Your task to perform on an android device: Add "logitech g pro" to the cart on walmart.com Image 0: 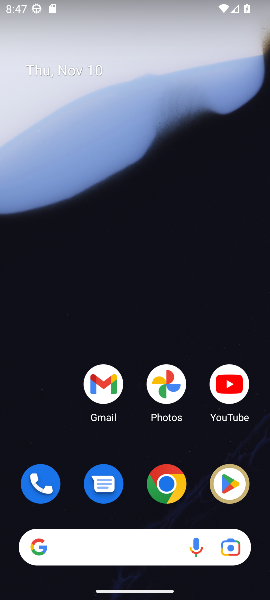
Step 0: click (173, 484)
Your task to perform on an android device: Add "logitech g pro" to the cart on walmart.com Image 1: 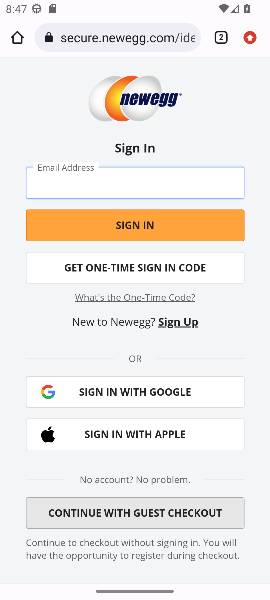
Step 1: click (123, 42)
Your task to perform on an android device: Add "logitech g pro" to the cart on walmart.com Image 2: 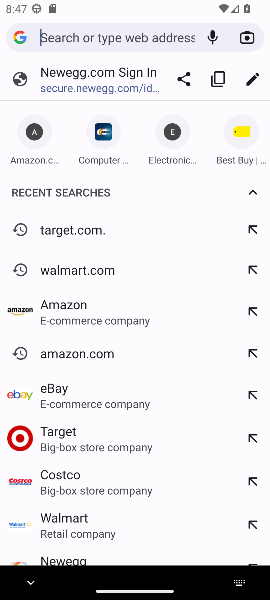
Step 2: click (92, 278)
Your task to perform on an android device: Add "logitech g pro" to the cart on walmart.com Image 3: 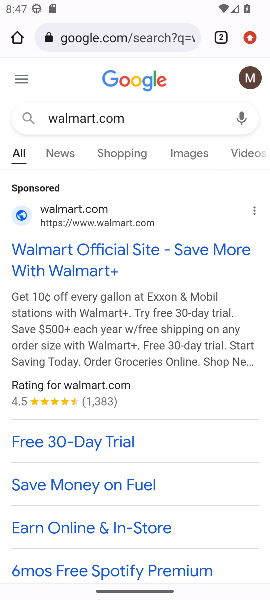
Step 3: drag from (93, 303) to (79, 112)
Your task to perform on an android device: Add "logitech g pro" to the cart on walmart.com Image 4: 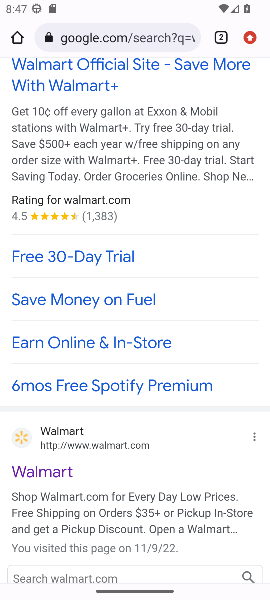
Step 4: click (55, 442)
Your task to perform on an android device: Add "logitech g pro" to the cart on walmart.com Image 5: 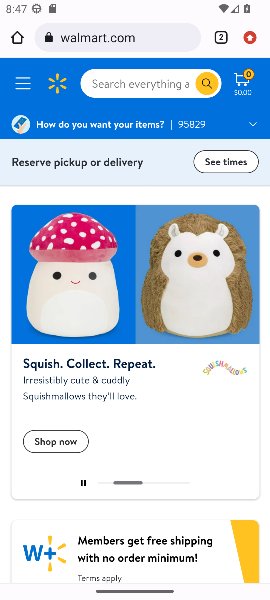
Step 5: click (176, 87)
Your task to perform on an android device: Add "logitech g pro" to the cart on walmart.com Image 6: 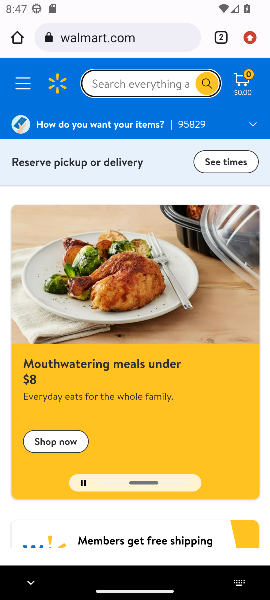
Step 6: type "logitech g pro"
Your task to perform on an android device: Add "logitech g pro" to the cart on walmart.com Image 7: 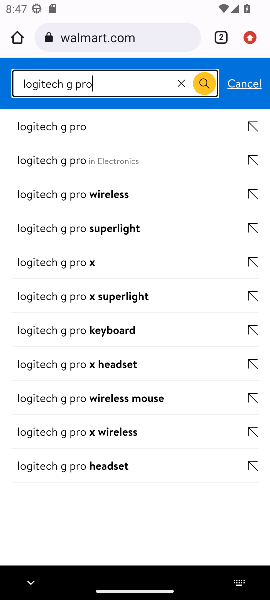
Step 7: click (69, 132)
Your task to perform on an android device: Add "logitech g pro" to the cart on walmart.com Image 8: 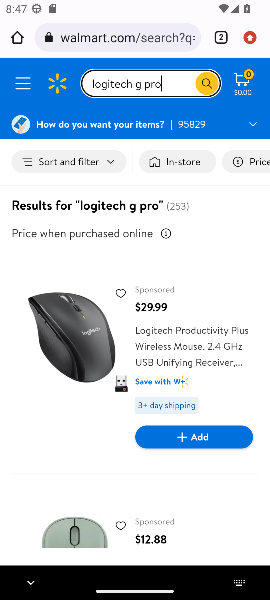
Step 8: drag from (112, 400) to (107, 206)
Your task to perform on an android device: Add "logitech g pro" to the cart on walmart.com Image 9: 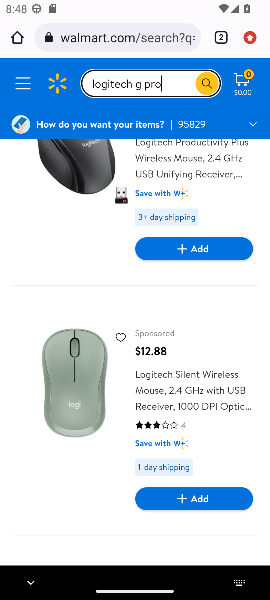
Step 9: drag from (114, 462) to (98, 133)
Your task to perform on an android device: Add "logitech g pro" to the cart on walmart.com Image 10: 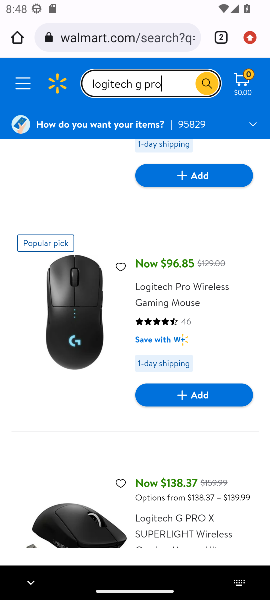
Step 10: drag from (82, 380) to (72, 192)
Your task to perform on an android device: Add "logitech g pro" to the cart on walmart.com Image 11: 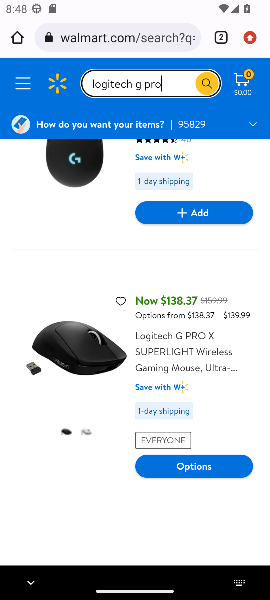
Step 11: click (103, 366)
Your task to perform on an android device: Add "logitech g pro" to the cart on walmart.com Image 12: 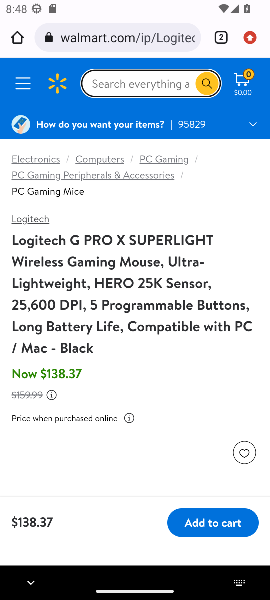
Step 12: drag from (115, 395) to (117, 186)
Your task to perform on an android device: Add "logitech g pro" to the cart on walmart.com Image 13: 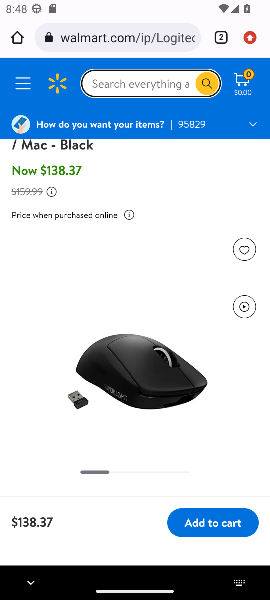
Step 13: drag from (106, 446) to (104, 293)
Your task to perform on an android device: Add "logitech g pro" to the cart on walmart.com Image 14: 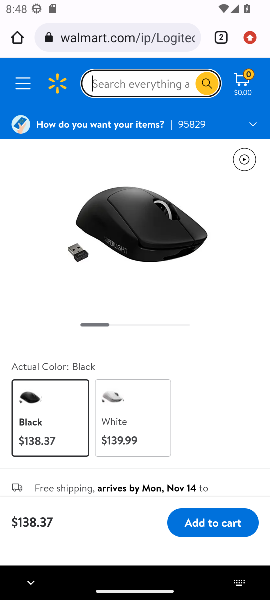
Step 14: click (201, 521)
Your task to perform on an android device: Add "logitech g pro" to the cart on walmart.com Image 15: 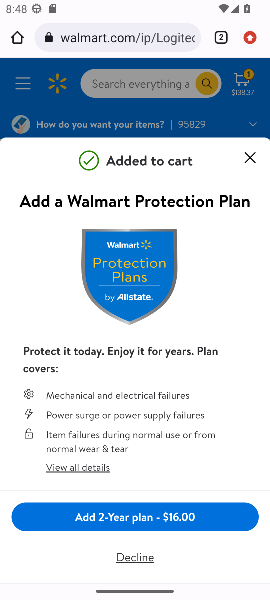
Step 15: task complete